Your task to perform on an android device: turn notification dots off Image 0: 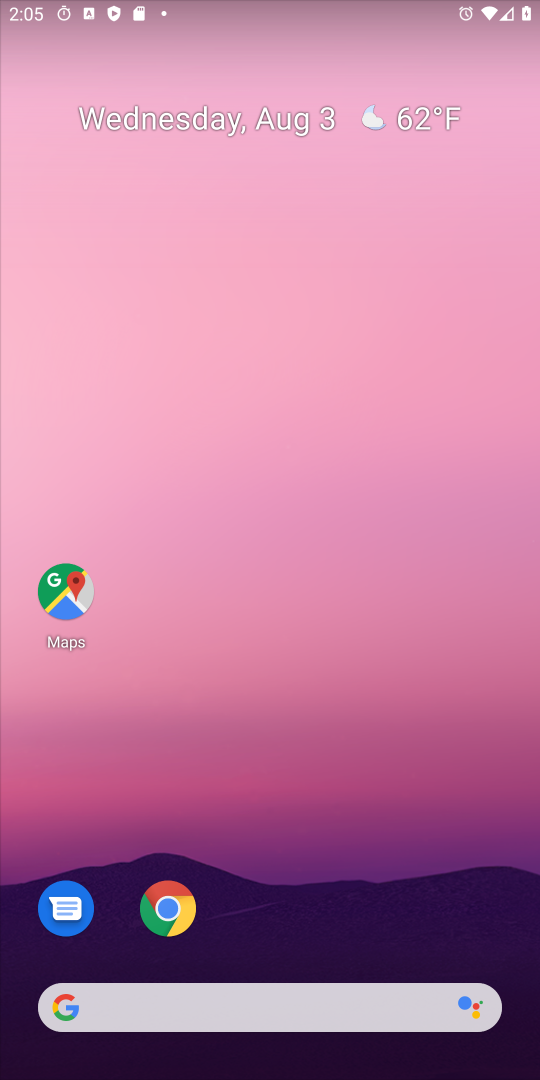
Step 0: drag from (306, 910) to (320, 235)
Your task to perform on an android device: turn notification dots off Image 1: 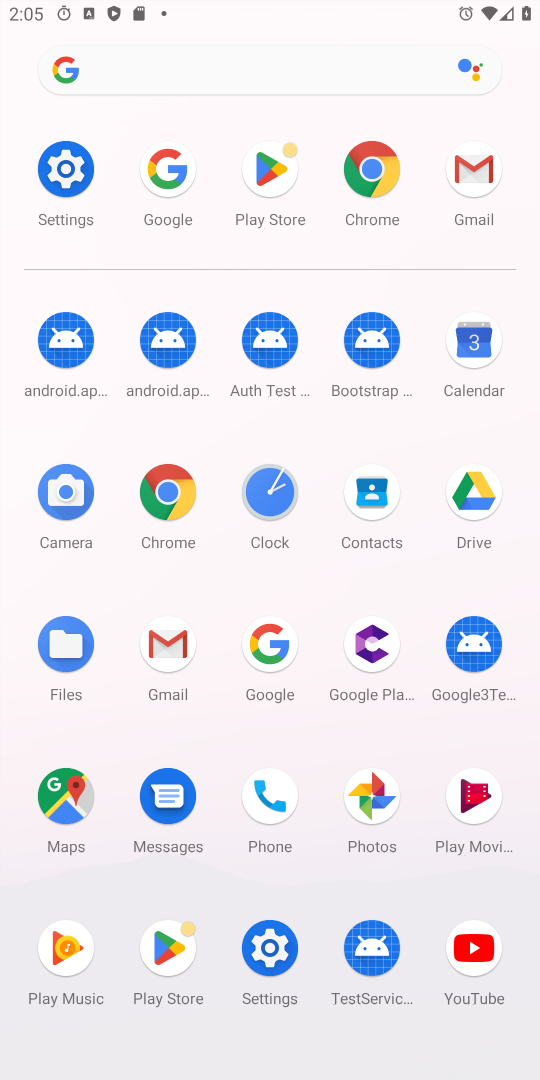
Step 1: click (276, 945)
Your task to perform on an android device: turn notification dots off Image 2: 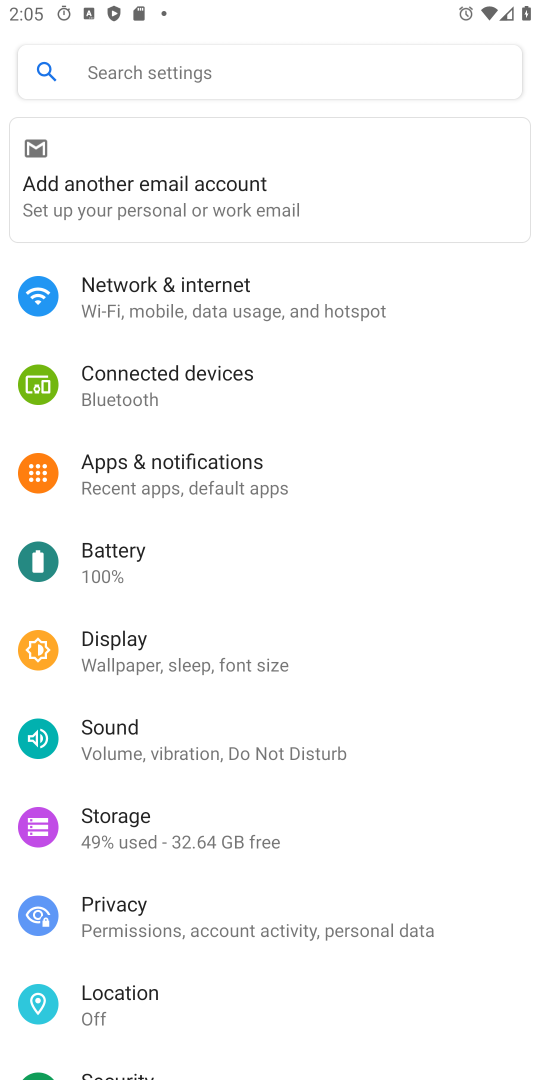
Step 2: click (247, 479)
Your task to perform on an android device: turn notification dots off Image 3: 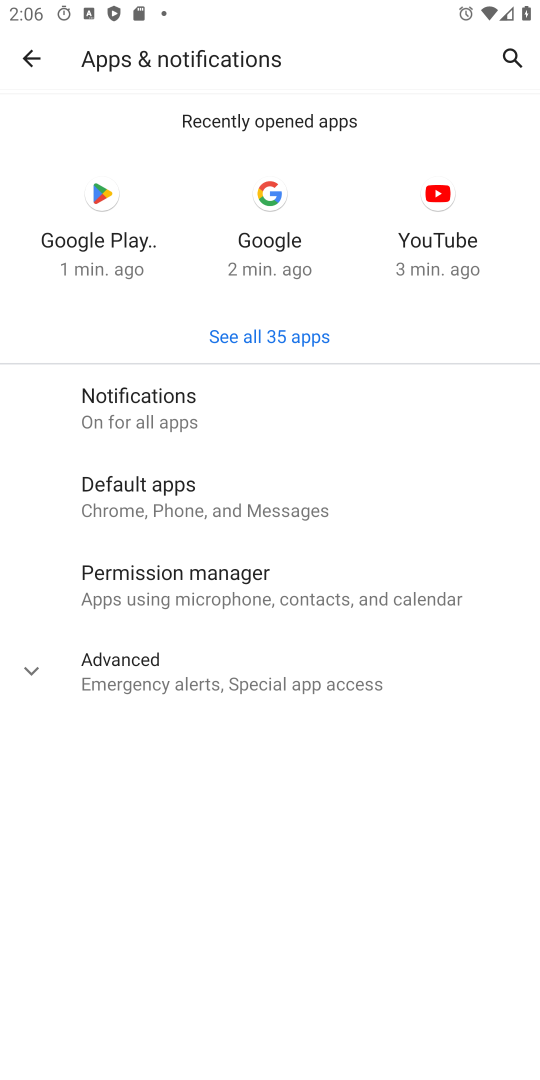
Step 3: click (189, 431)
Your task to perform on an android device: turn notification dots off Image 4: 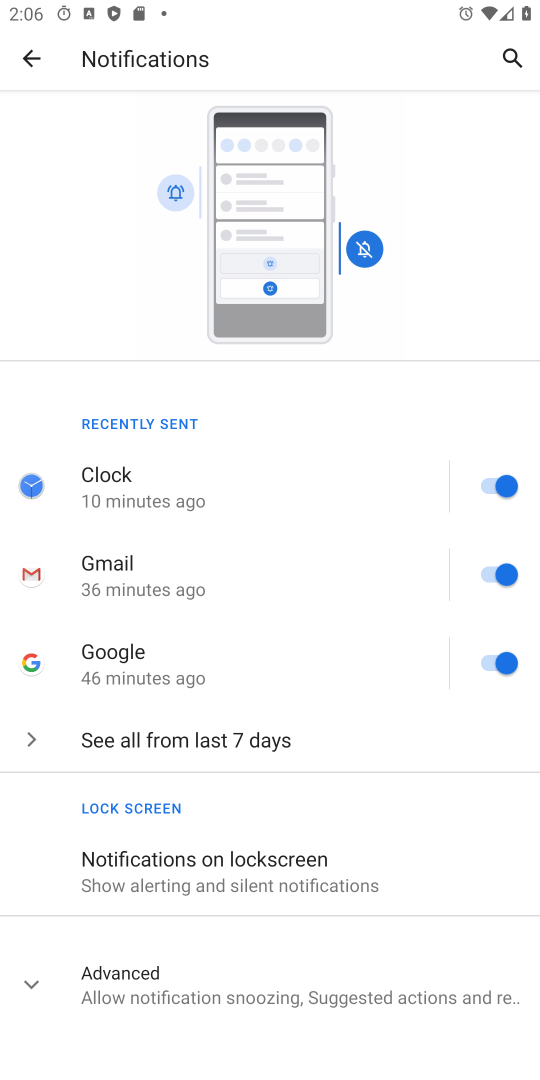
Step 4: click (212, 972)
Your task to perform on an android device: turn notification dots off Image 5: 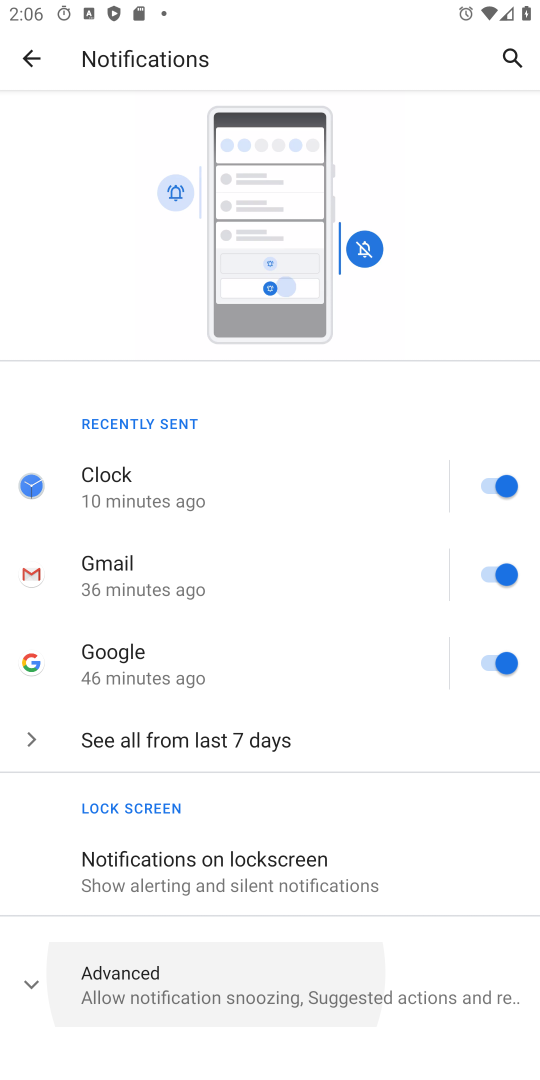
Step 5: drag from (201, 913) to (158, 344)
Your task to perform on an android device: turn notification dots off Image 6: 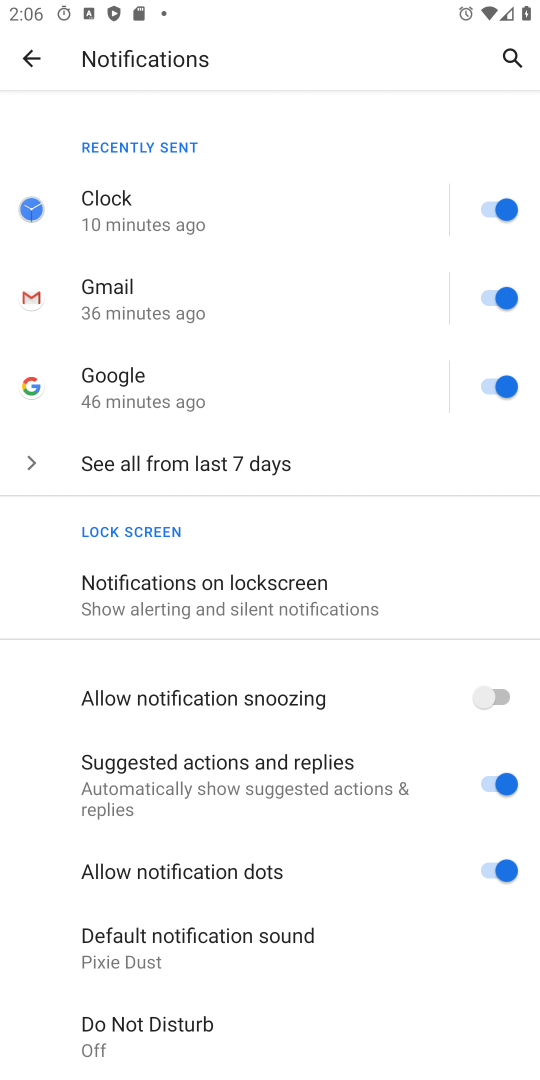
Step 6: click (518, 868)
Your task to perform on an android device: turn notification dots off Image 7: 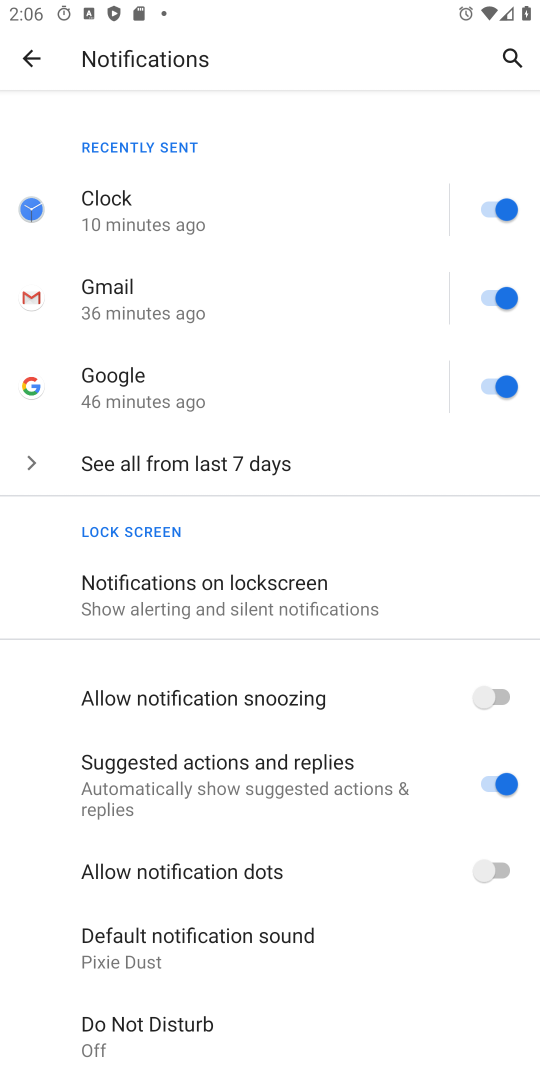
Step 7: task complete